Your task to perform on an android device: turn on airplane mode Image 0: 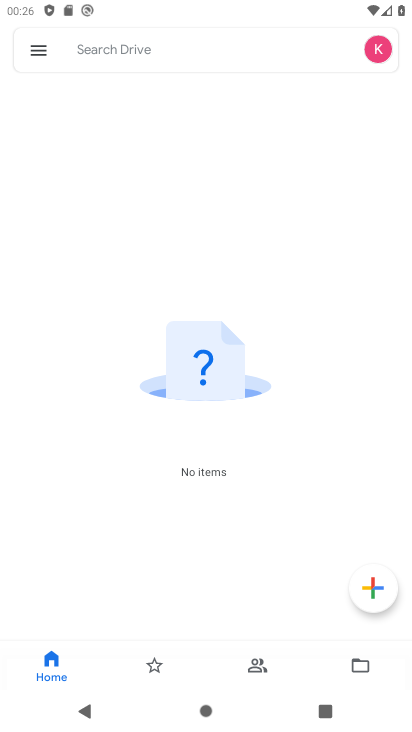
Step 0: press home button
Your task to perform on an android device: turn on airplane mode Image 1: 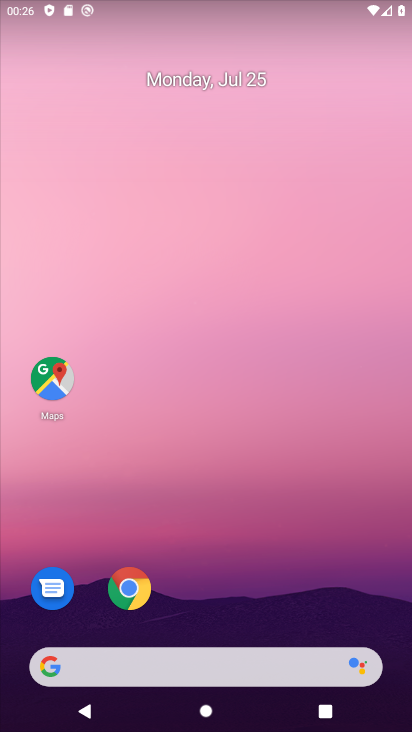
Step 1: drag from (251, 617) to (208, 1)
Your task to perform on an android device: turn on airplane mode Image 2: 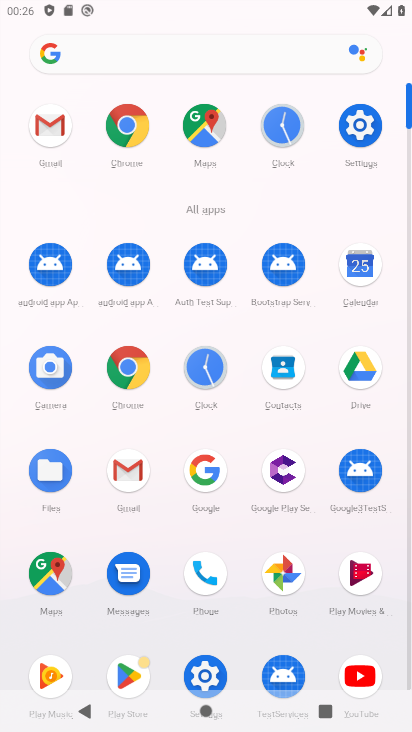
Step 2: click (212, 656)
Your task to perform on an android device: turn on airplane mode Image 3: 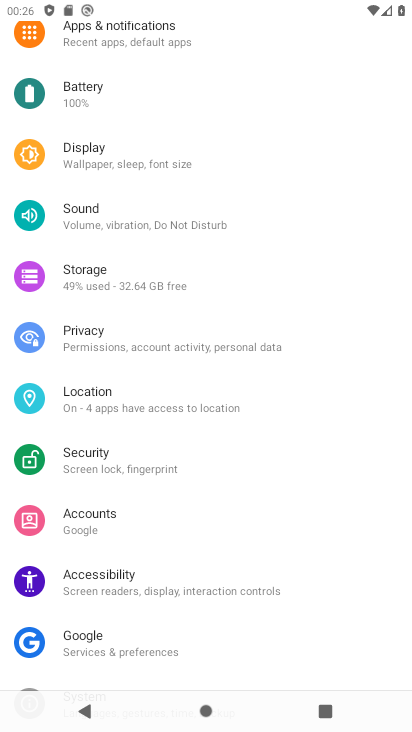
Step 3: drag from (136, 128) to (153, 321)
Your task to perform on an android device: turn on airplane mode Image 4: 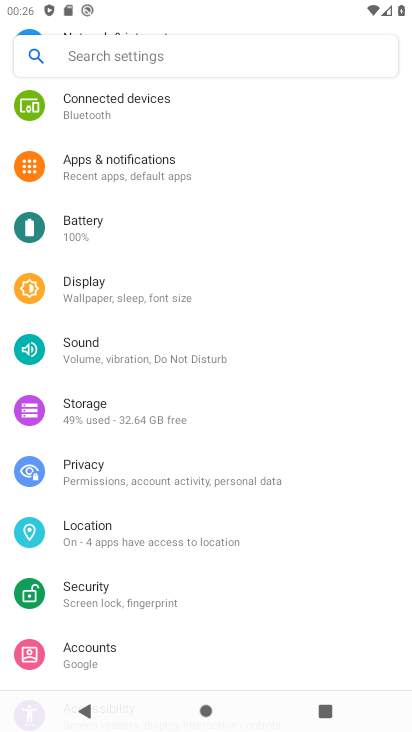
Step 4: drag from (146, 162) to (156, 507)
Your task to perform on an android device: turn on airplane mode Image 5: 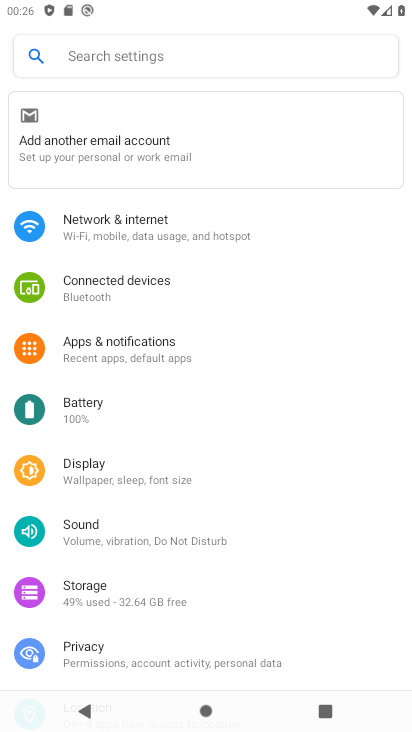
Step 5: click (145, 213)
Your task to perform on an android device: turn on airplane mode Image 6: 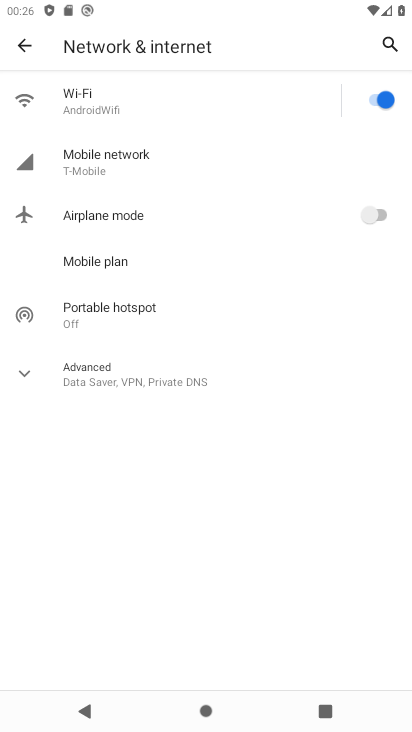
Step 6: click (394, 214)
Your task to perform on an android device: turn on airplane mode Image 7: 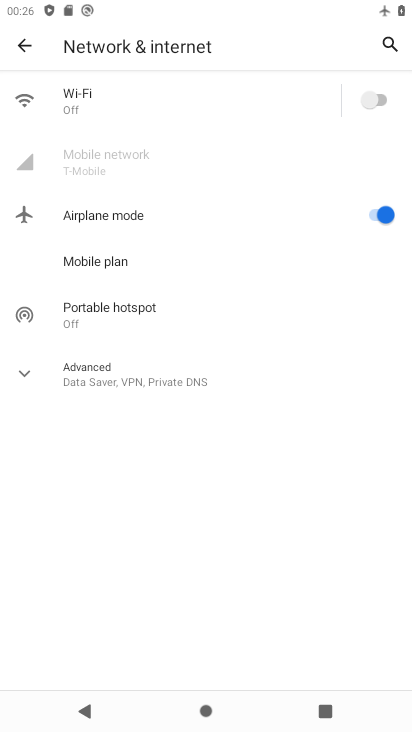
Step 7: task complete